Your task to perform on an android device: See recent photos Image 0: 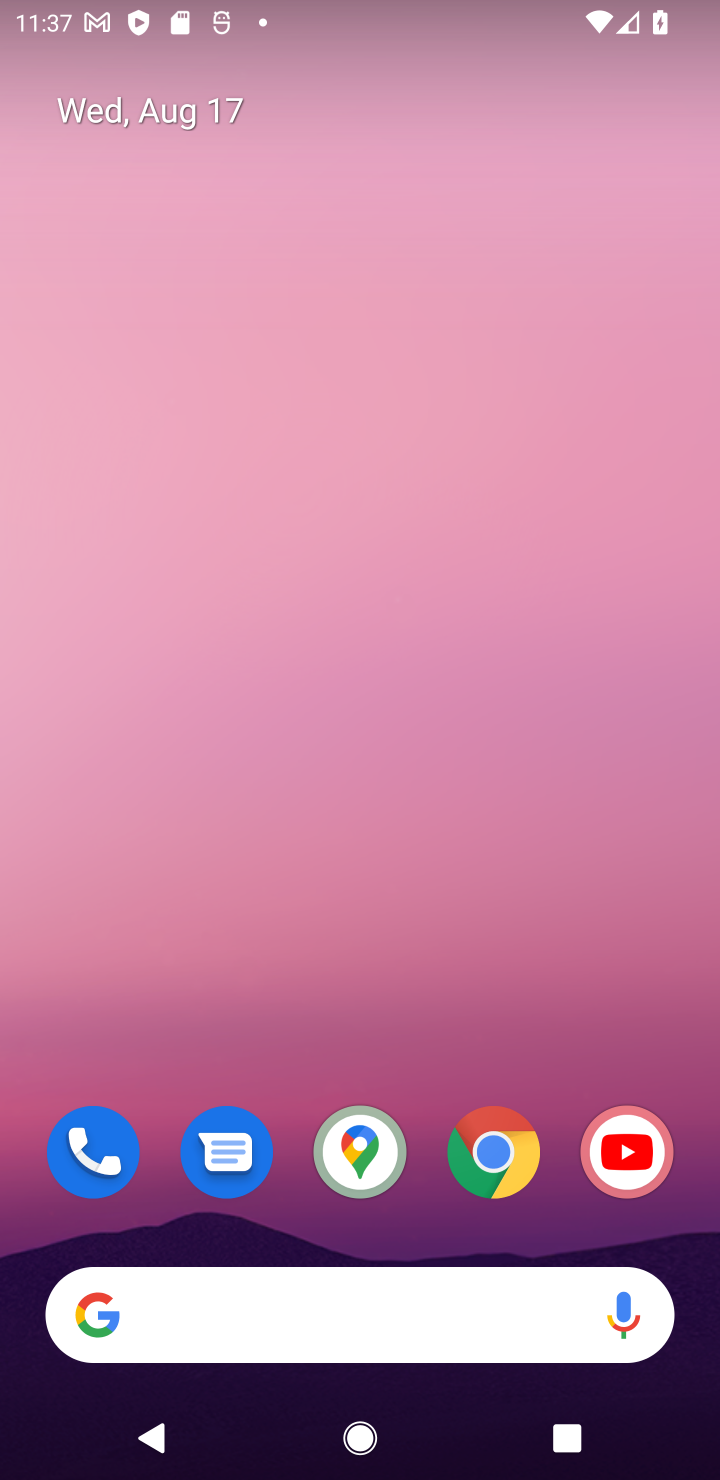
Step 0: drag from (696, 1230) to (389, 131)
Your task to perform on an android device: See recent photos Image 1: 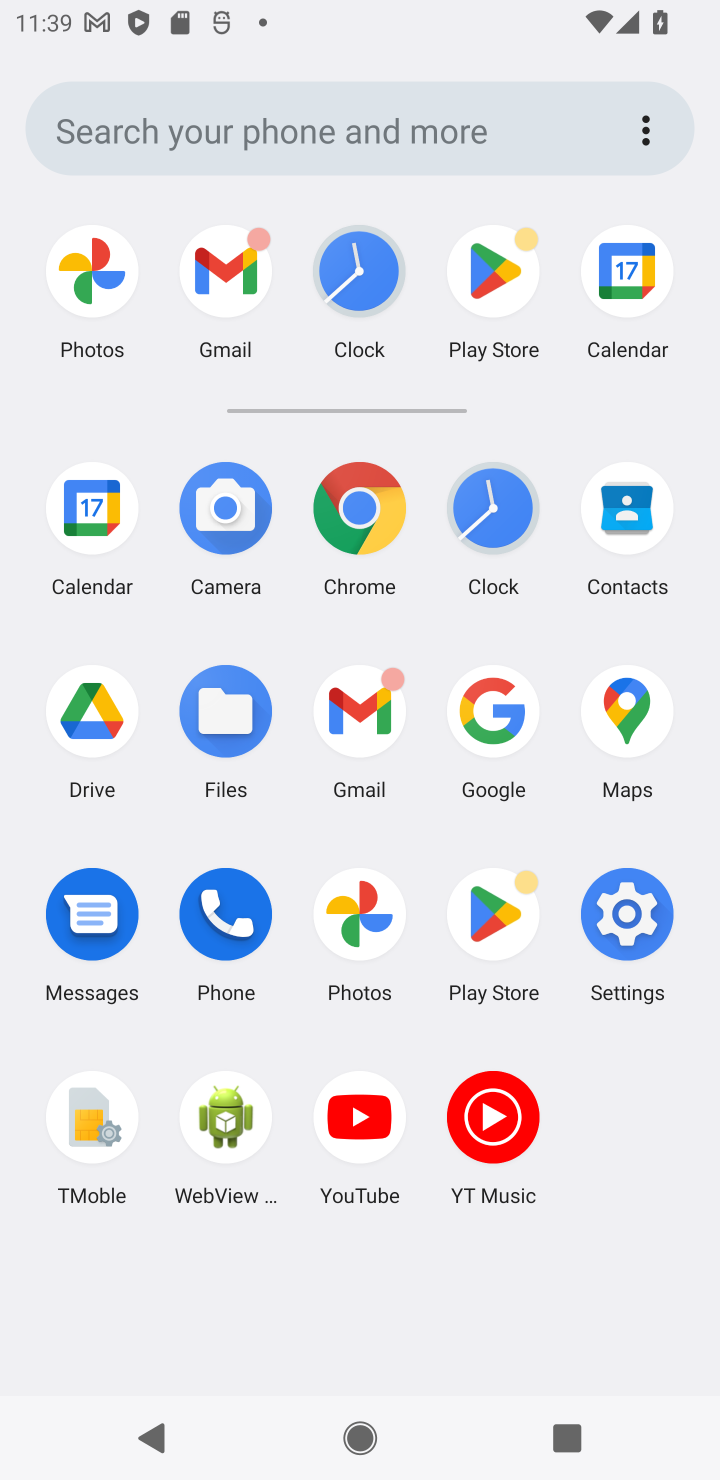
Step 1: click (365, 943)
Your task to perform on an android device: See recent photos Image 2: 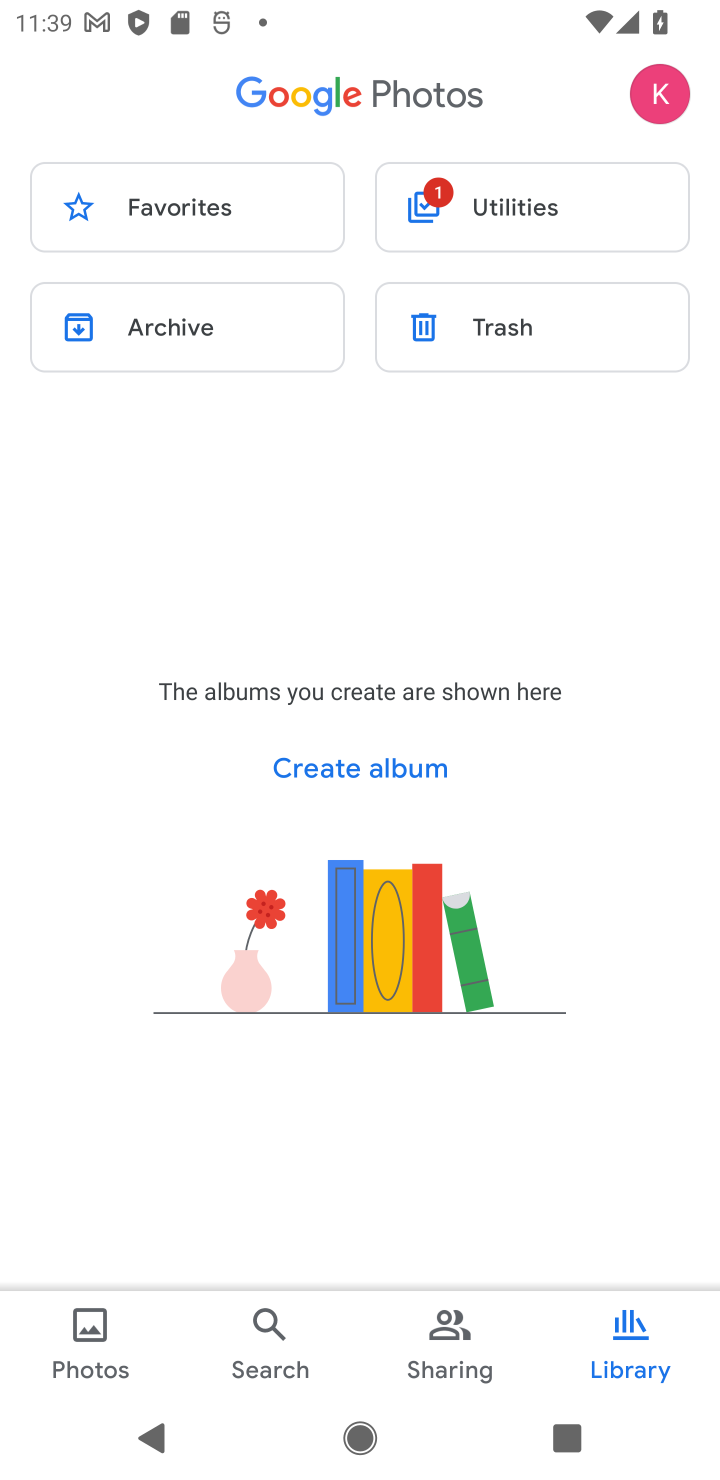
Step 2: task complete